Your task to perform on an android device: open wifi settings Image 0: 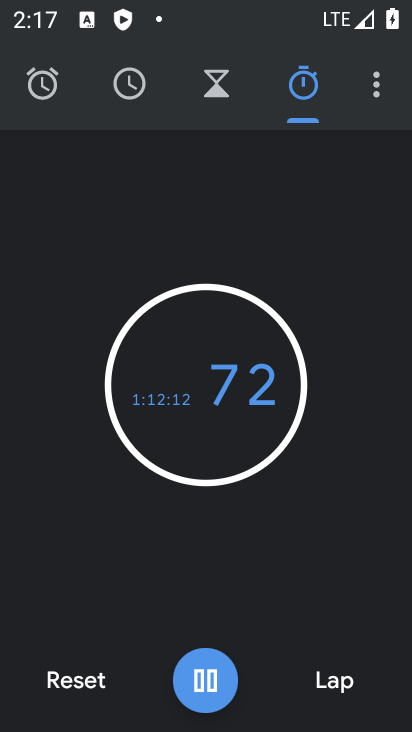
Step 0: press home button
Your task to perform on an android device: open wifi settings Image 1: 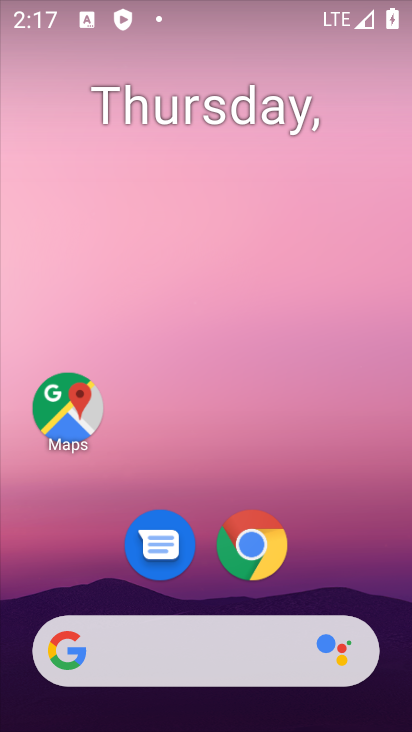
Step 1: drag from (276, 658) to (272, 84)
Your task to perform on an android device: open wifi settings Image 2: 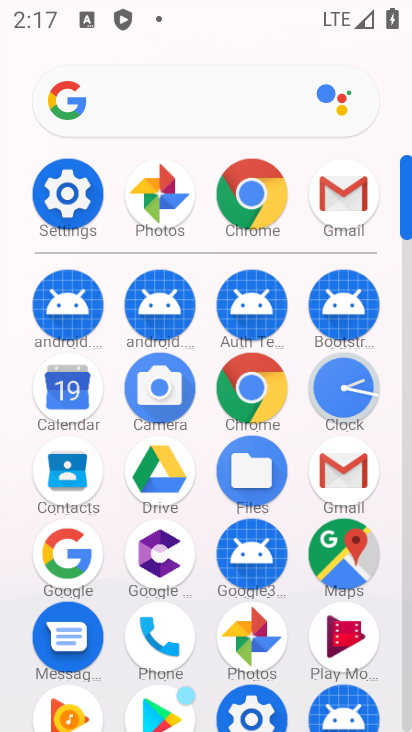
Step 2: click (78, 199)
Your task to perform on an android device: open wifi settings Image 3: 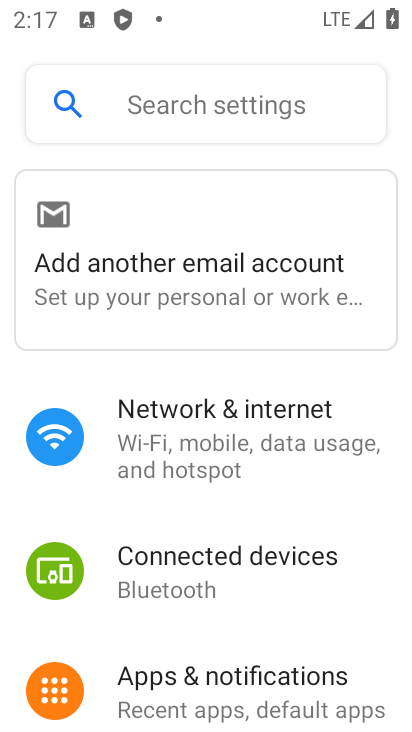
Step 3: drag from (226, 653) to (246, 334)
Your task to perform on an android device: open wifi settings Image 4: 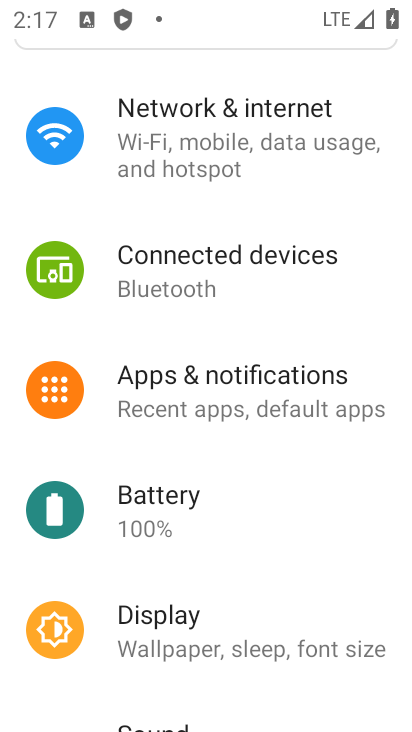
Step 4: click (243, 169)
Your task to perform on an android device: open wifi settings Image 5: 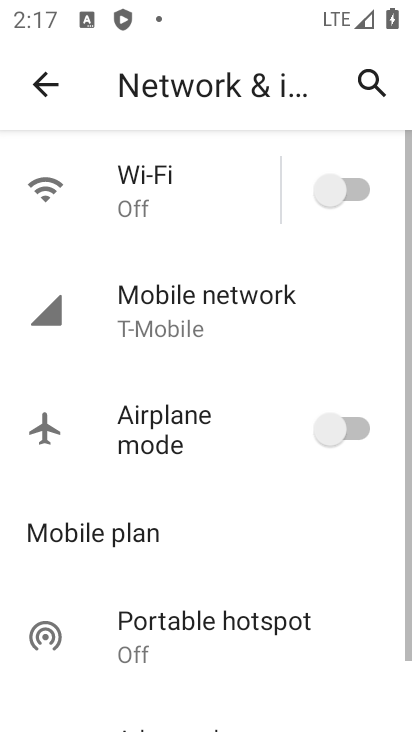
Step 5: click (178, 187)
Your task to perform on an android device: open wifi settings Image 6: 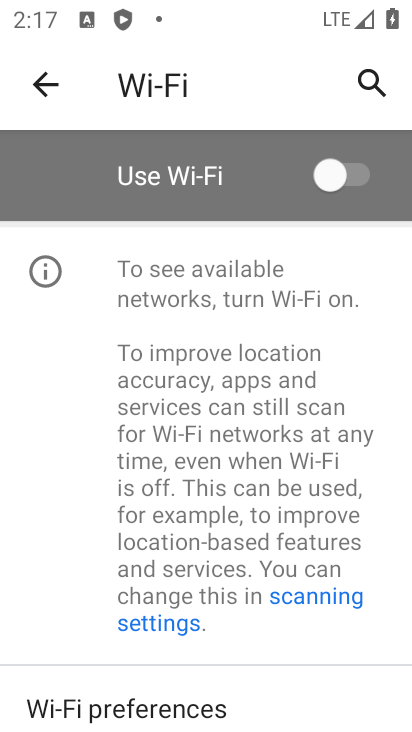
Step 6: task complete